Your task to perform on an android device: snooze an email in the gmail app Image 0: 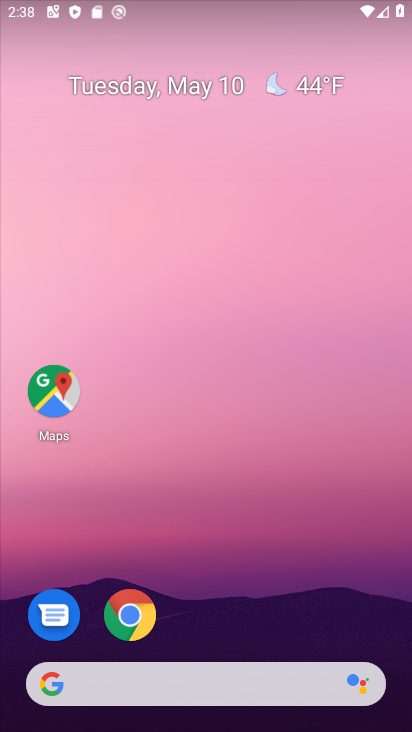
Step 0: drag from (226, 101) to (253, 458)
Your task to perform on an android device: snooze an email in the gmail app Image 1: 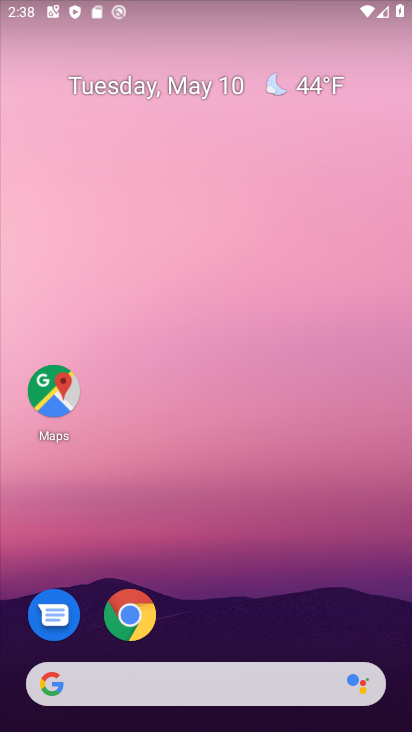
Step 1: drag from (248, 2) to (308, 534)
Your task to perform on an android device: snooze an email in the gmail app Image 2: 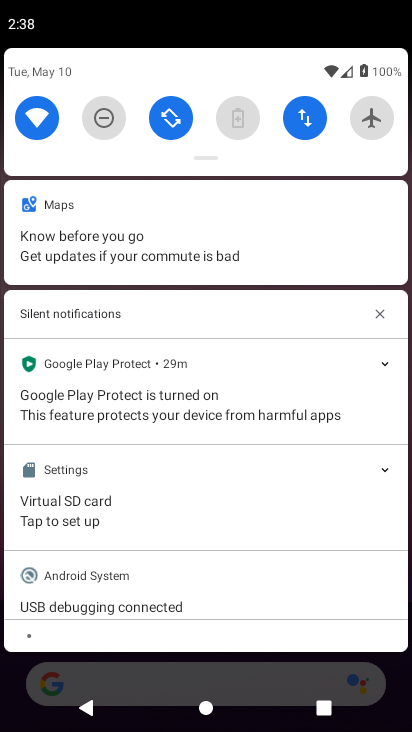
Step 2: click (343, 683)
Your task to perform on an android device: snooze an email in the gmail app Image 3: 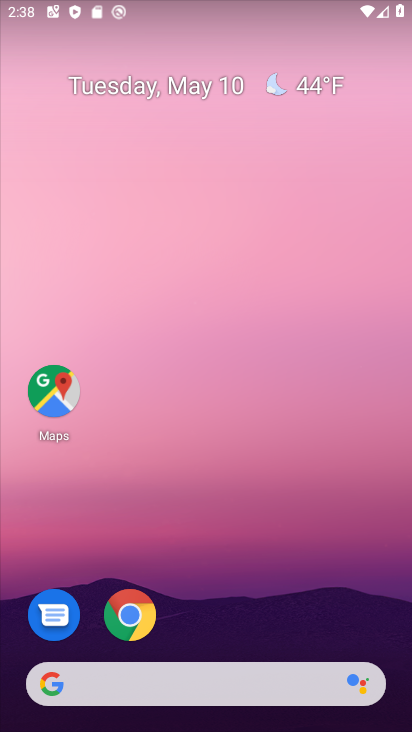
Step 3: drag from (324, 587) to (296, 88)
Your task to perform on an android device: snooze an email in the gmail app Image 4: 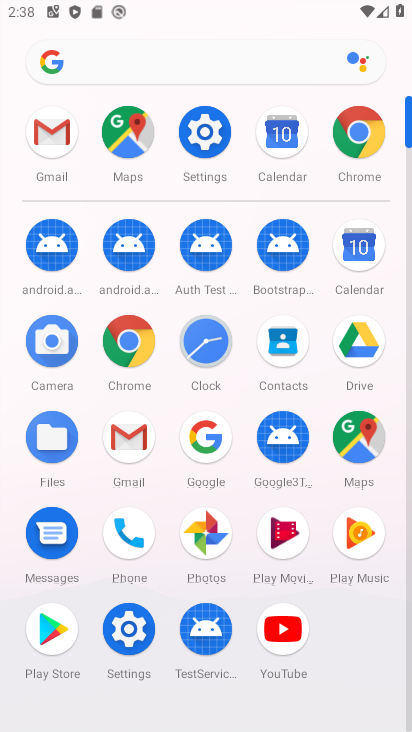
Step 4: click (64, 139)
Your task to perform on an android device: snooze an email in the gmail app Image 5: 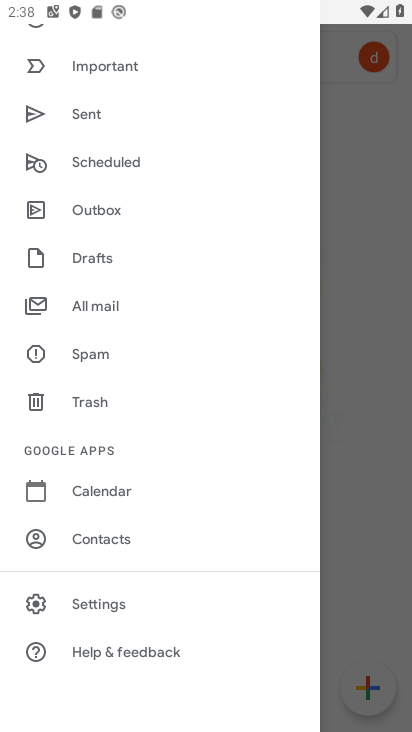
Step 5: task complete